Your task to perform on an android device: Open the stopwatch Image 0: 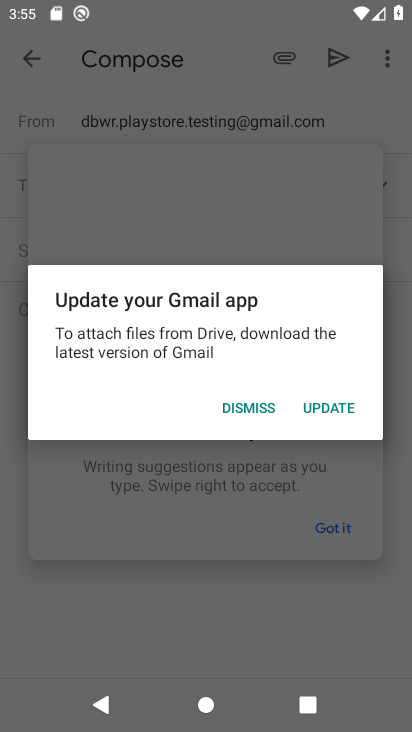
Step 0: press home button
Your task to perform on an android device: Open the stopwatch Image 1: 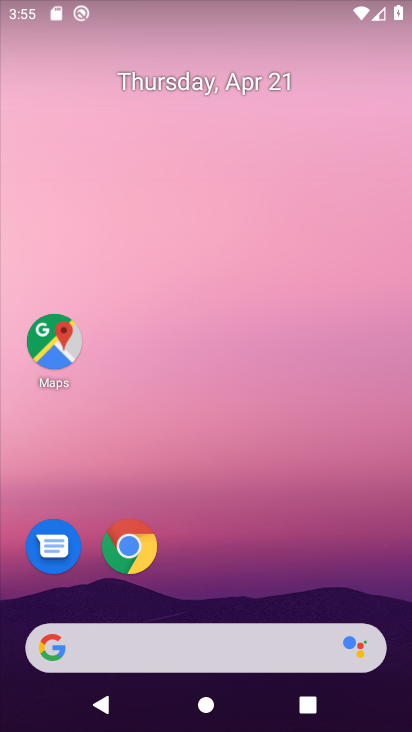
Step 1: drag from (222, 609) to (334, 71)
Your task to perform on an android device: Open the stopwatch Image 2: 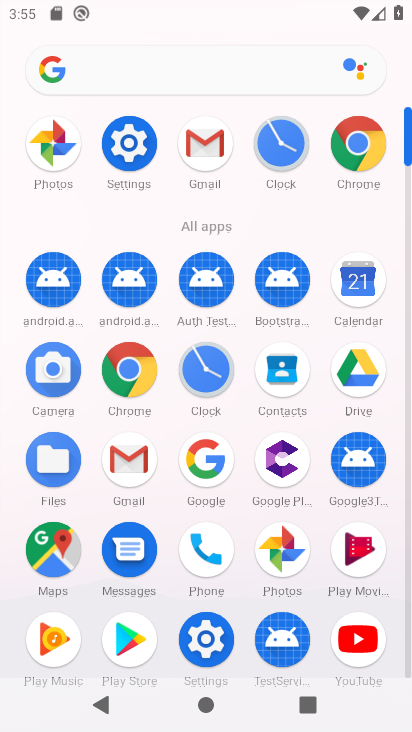
Step 2: click (269, 158)
Your task to perform on an android device: Open the stopwatch Image 3: 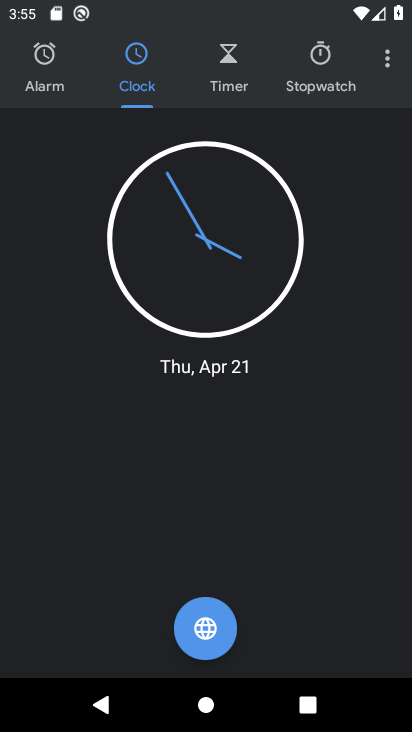
Step 3: click (320, 80)
Your task to perform on an android device: Open the stopwatch Image 4: 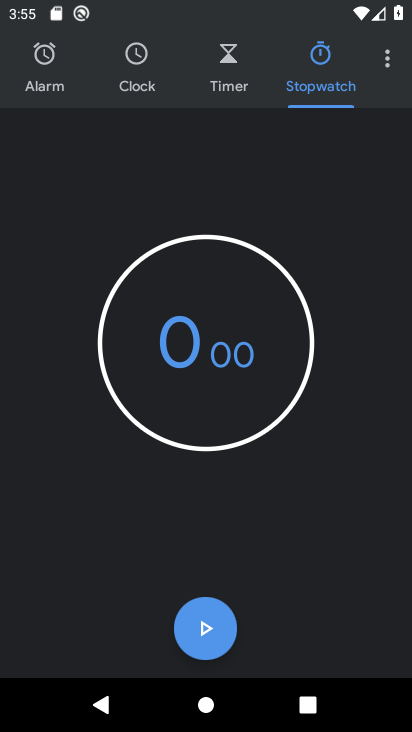
Step 4: task complete